Your task to perform on an android device: What's the weather today? Image 0: 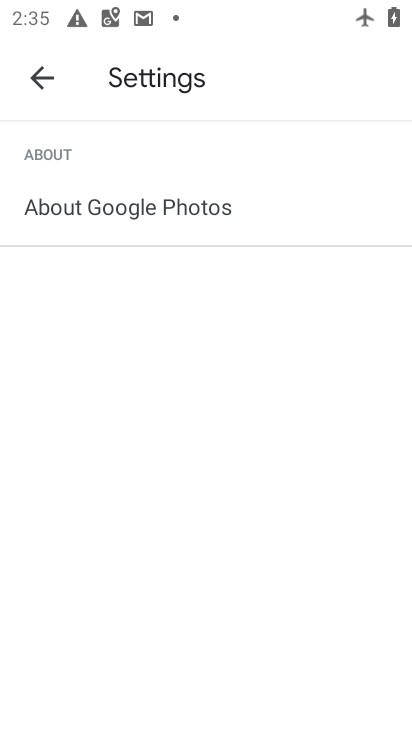
Step 0: press home button
Your task to perform on an android device: What's the weather today? Image 1: 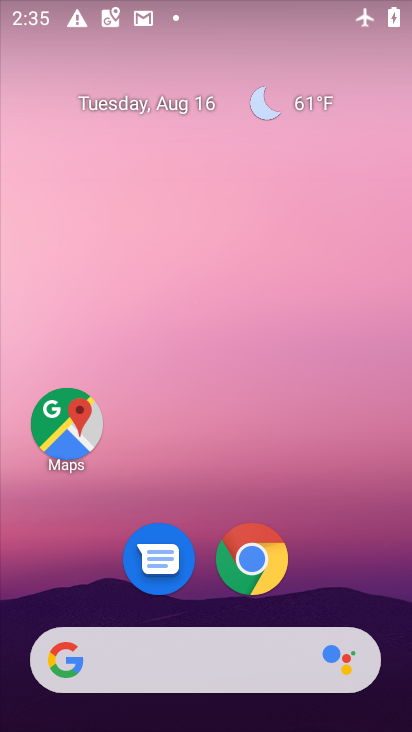
Step 1: click (302, 107)
Your task to perform on an android device: What's the weather today? Image 2: 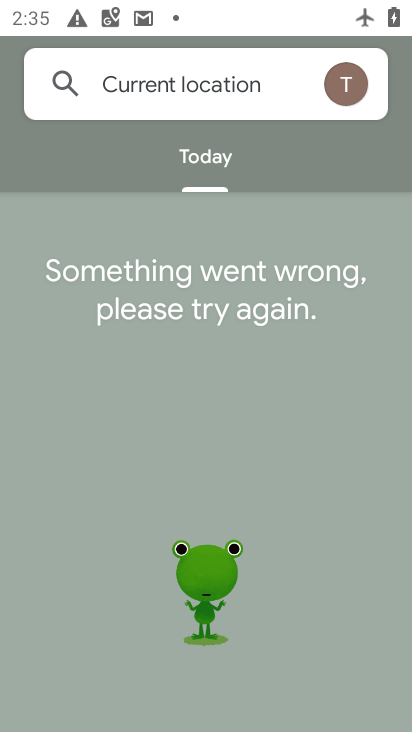
Step 2: task complete